Your task to perform on an android device: Open the Play Movies app and select the watchlist tab. Image 0: 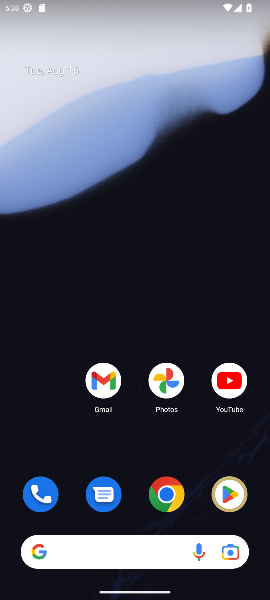
Step 0: drag from (61, 403) to (95, 89)
Your task to perform on an android device: Open the Play Movies app and select the watchlist tab. Image 1: 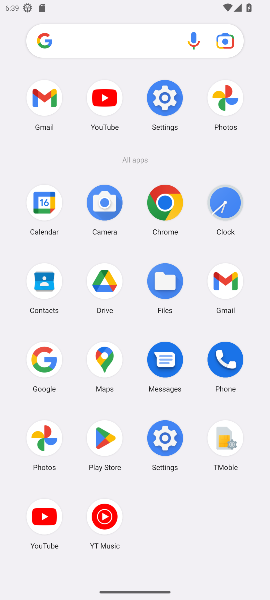
Step 1: click (27, 519)
Your task to perform on an android device: Open the Play Movies app and select the watchlist tab. Image 2: 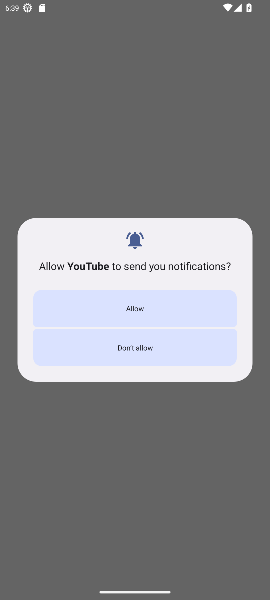
Step 2: click (114, 304)
Your task to perform on an android device: Open the Play Movies app and select the watchlist tab. Image 3: 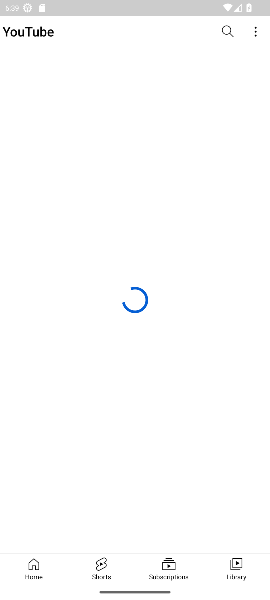
Step 3: task complete